Your task to perform on an android device: turn off picture-in-picture Image 0: 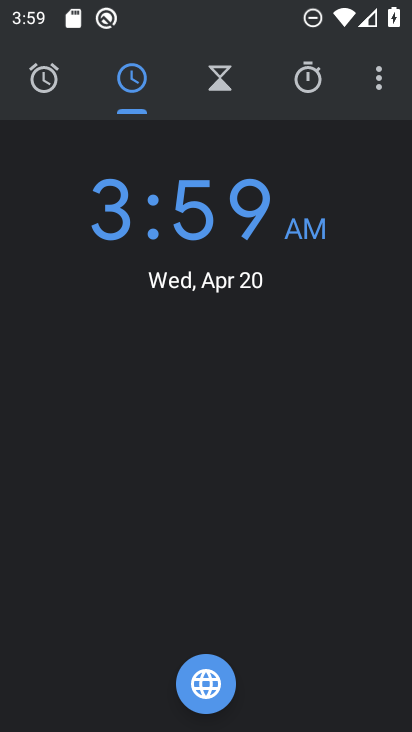
Step 0: press home button
Your task to perform on an android device: turn off picture-in-picture Image 1: 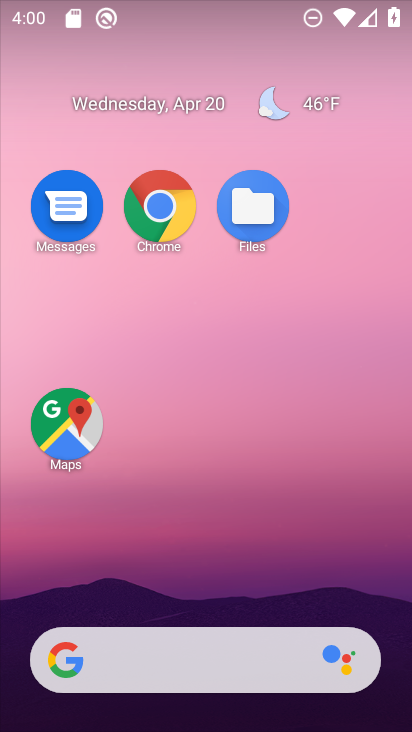
Step 1: click (155, 227)
Your task to perform on an android device: turn off picture-in-picture Image 2: 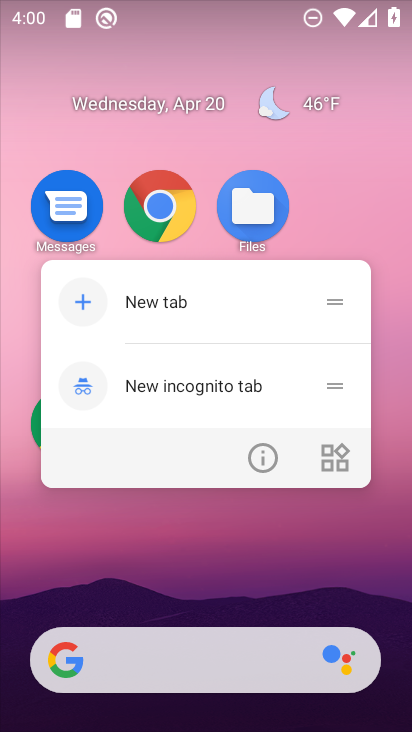
Step 2: click (258, 469)
Your task to perform on an android device: turn off picture-in-picture Image 3: 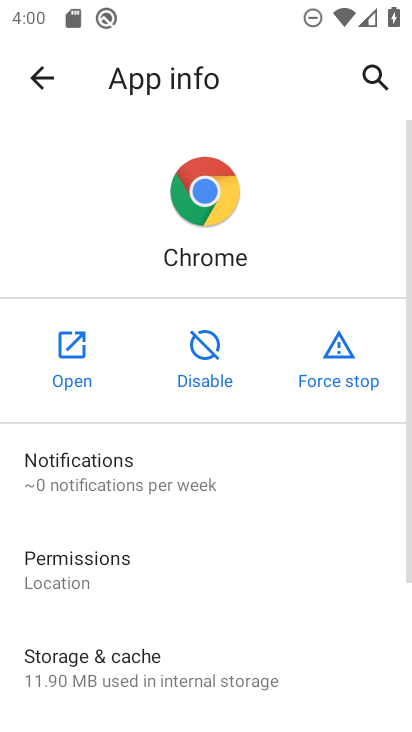
Step 3: drag from (313, 95) to (341, 2)
Your task to perform on an android device: turn off picture-in-picture Image 4: 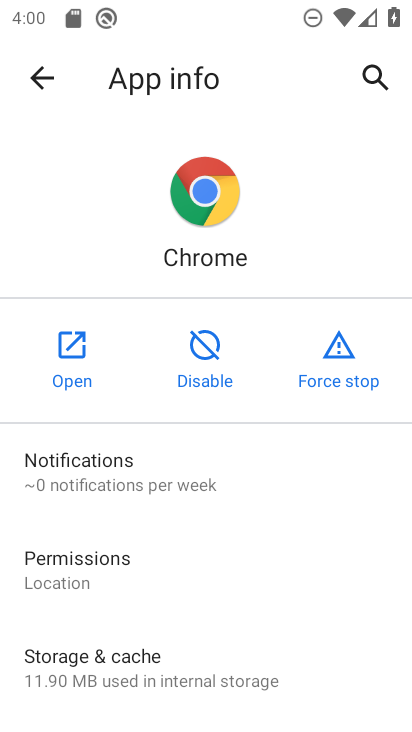
Step 4: drag from (191, 596) to (252, 125)
Your task to perform on an android device: turn off picture-in-picture Image 5: 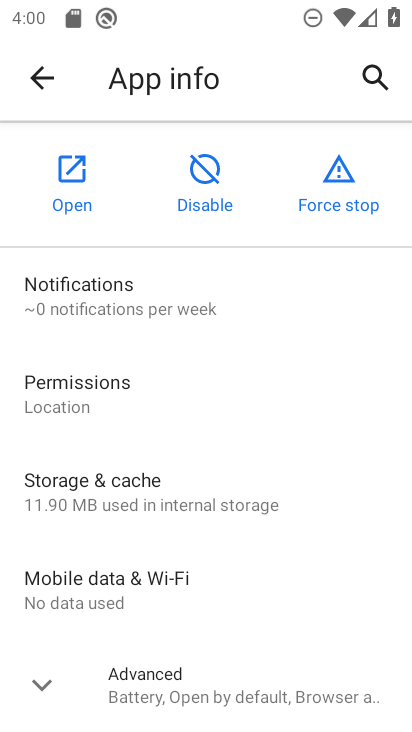
Step 5: click (127, 668)
Your task to perform on an android device: turn off picture-in-picture Image 6: 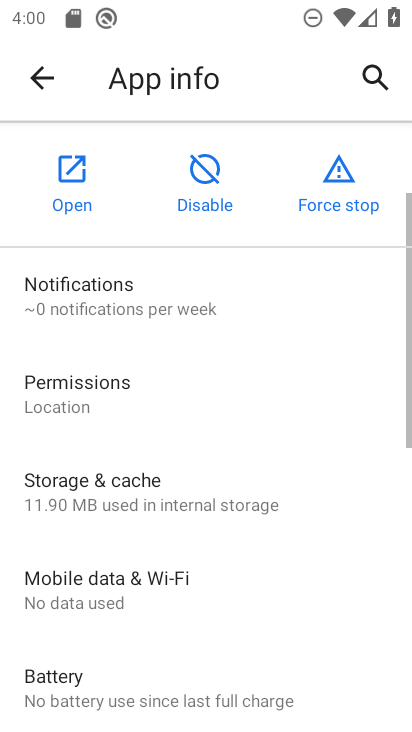
Step 6: drag from (185, 664) to (330, 106)
Your task to perform on an android device: turn off picture-in-picture Image 7: 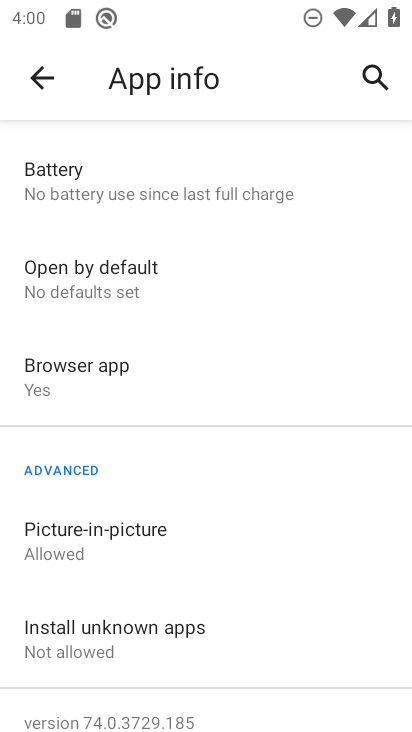
Step 7: click (131, 540)
Your task to perform on an android device: turn off picture-in-picture Image 8: 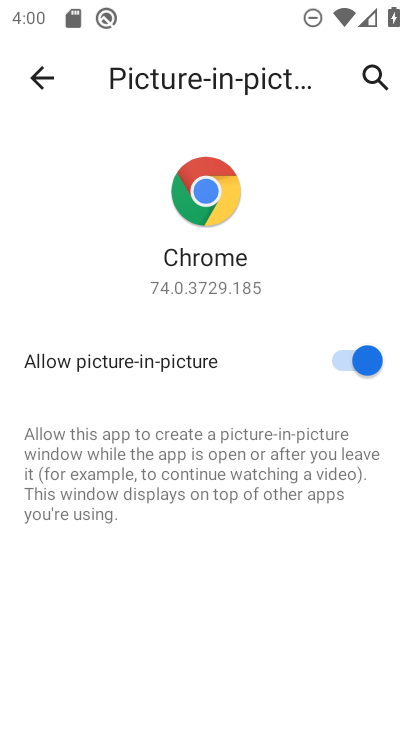
Step 8: click (337, 361)
Your task to perform on an android device: turn off picture-in-picture Image 9: 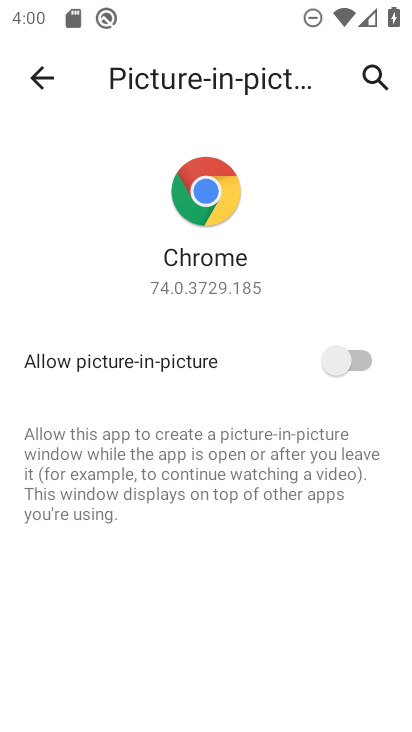
Step 9: task complete